Your task to perform on an android device: open app "Firefox Browser" (install if not already installed), go to login, and select forgot password Image 0: 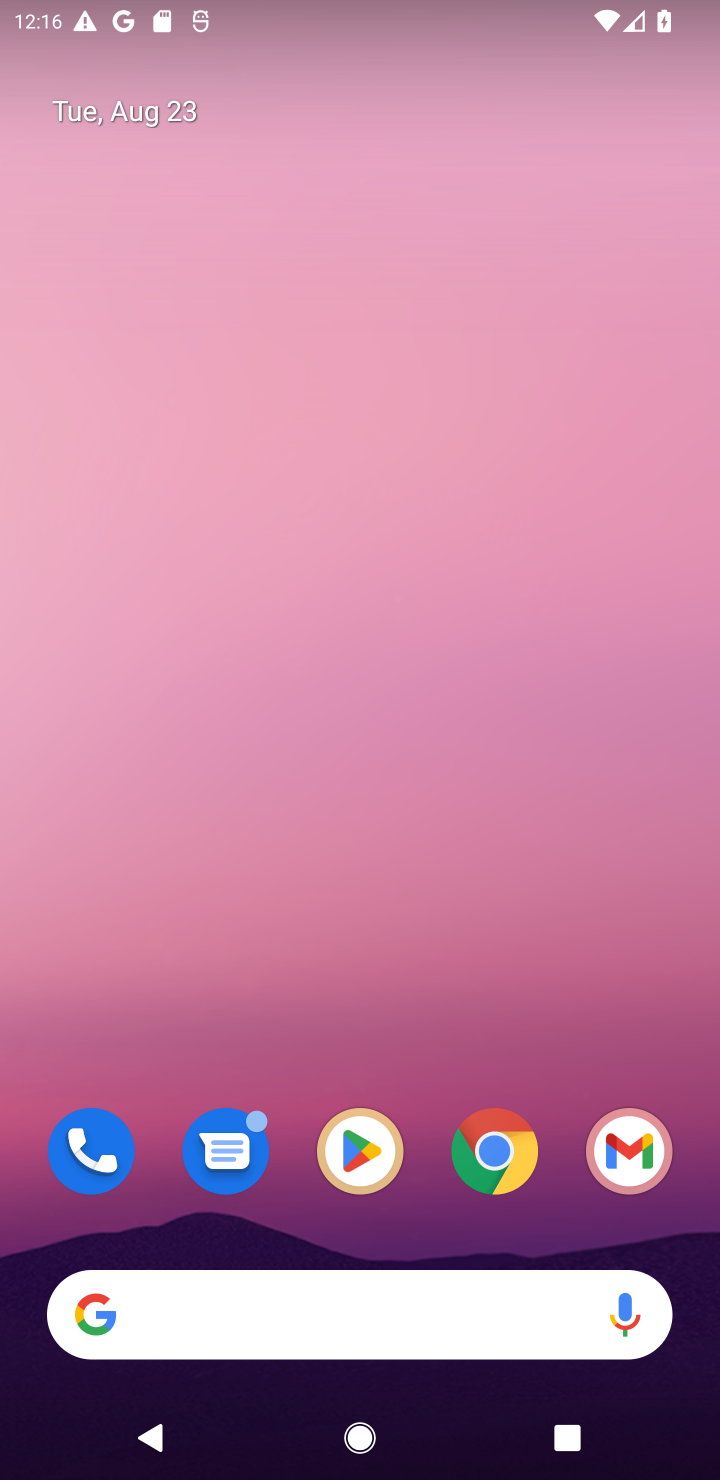
Step 0: click (345, 1136)
Your task to perform on an android device: open app "Firefox Browser" (install if not already installed), go to login, and select forgot password Image 1: 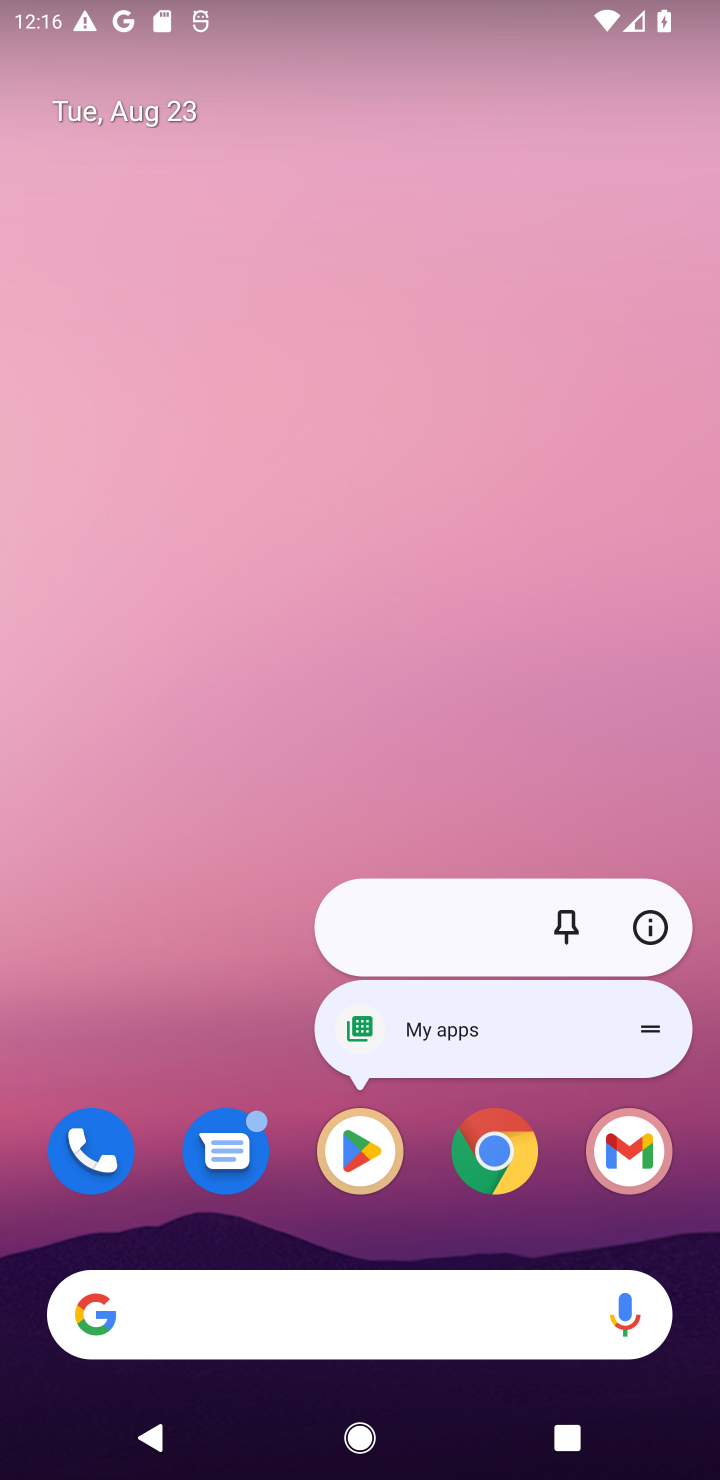
Step 1: click (348, 1152)
Your task to perform on an android device: open app "Firefox Browser" (install if not already installed), go to login, and select forgot password Image 2: 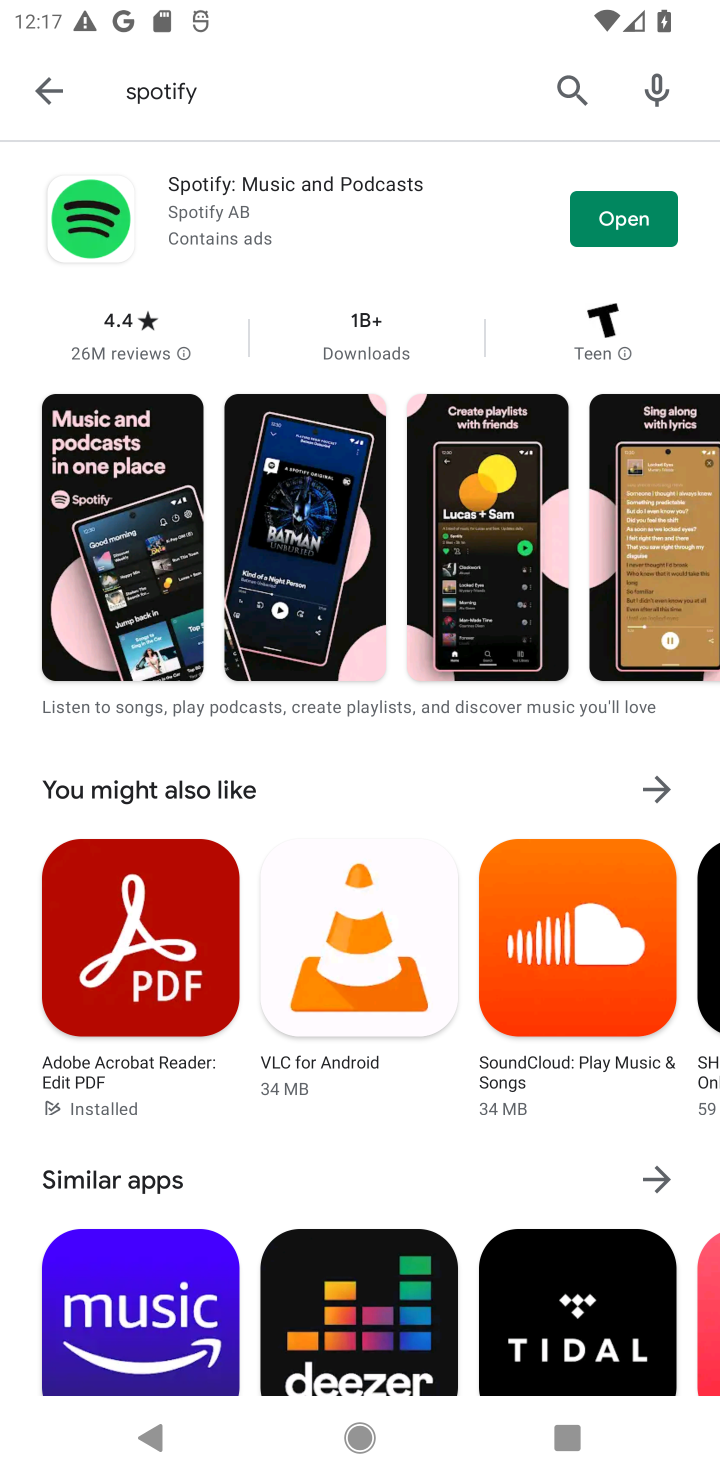
Step 2: click (561, 97)
Your task to perform on an android device: open app "Firefox Browser" (install if not already installed), go to login, and select forgot password Image 3: 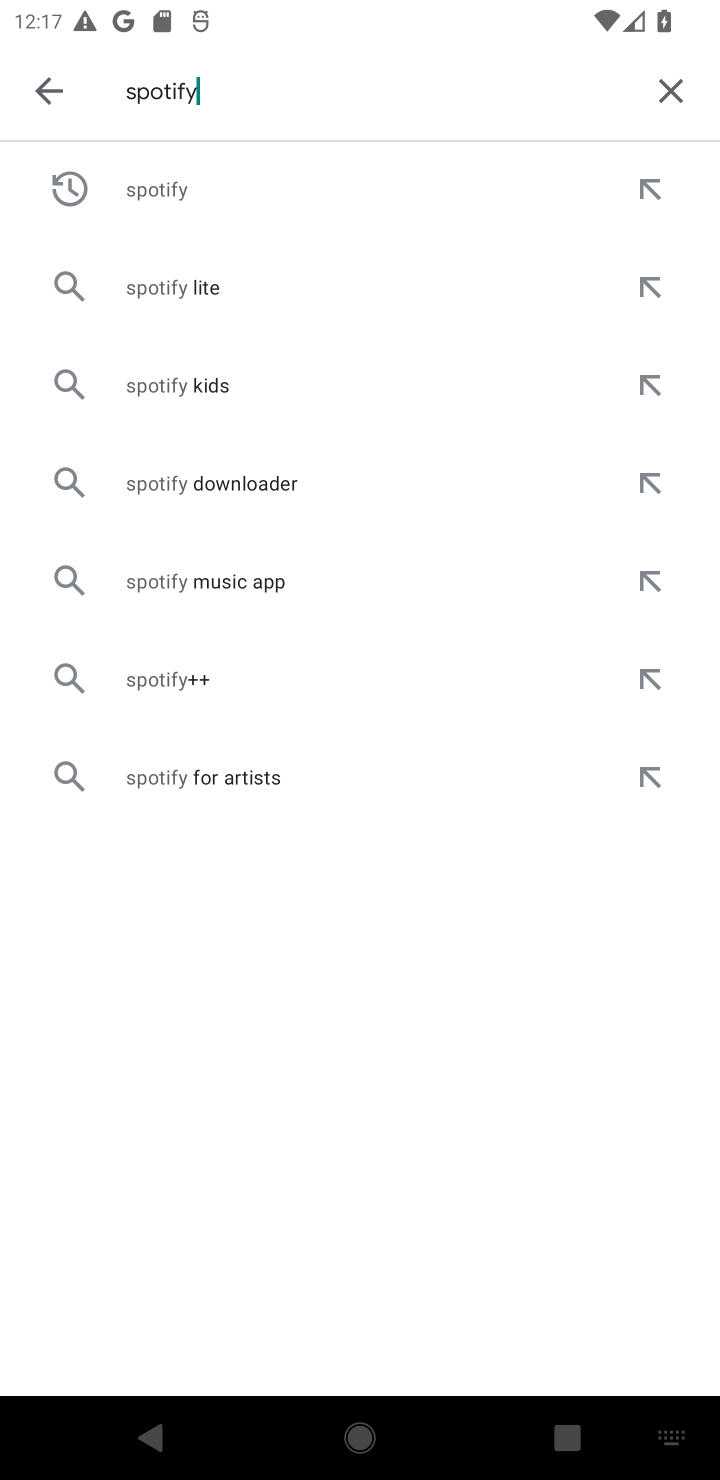
Step 3: click (668, 89)
Your task to perform on an android device: open app "Firefox Browser" (install if not already installed), go to login, and select forgot password Image 4: 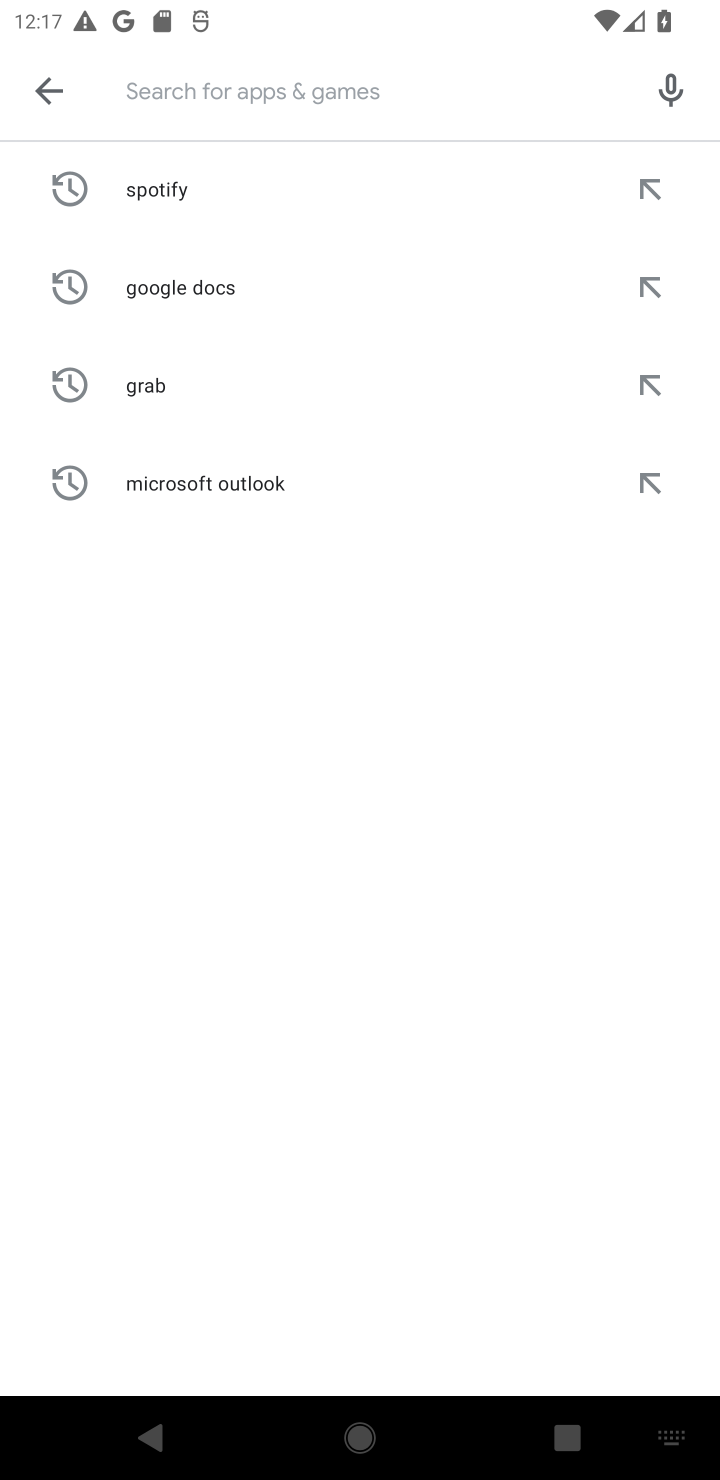
Step 4: type "Firefox Browser"
Your task to perform on an android device: open app "Firefox Browser" (install if not already installed), go to login, and select forgot password Image 5: 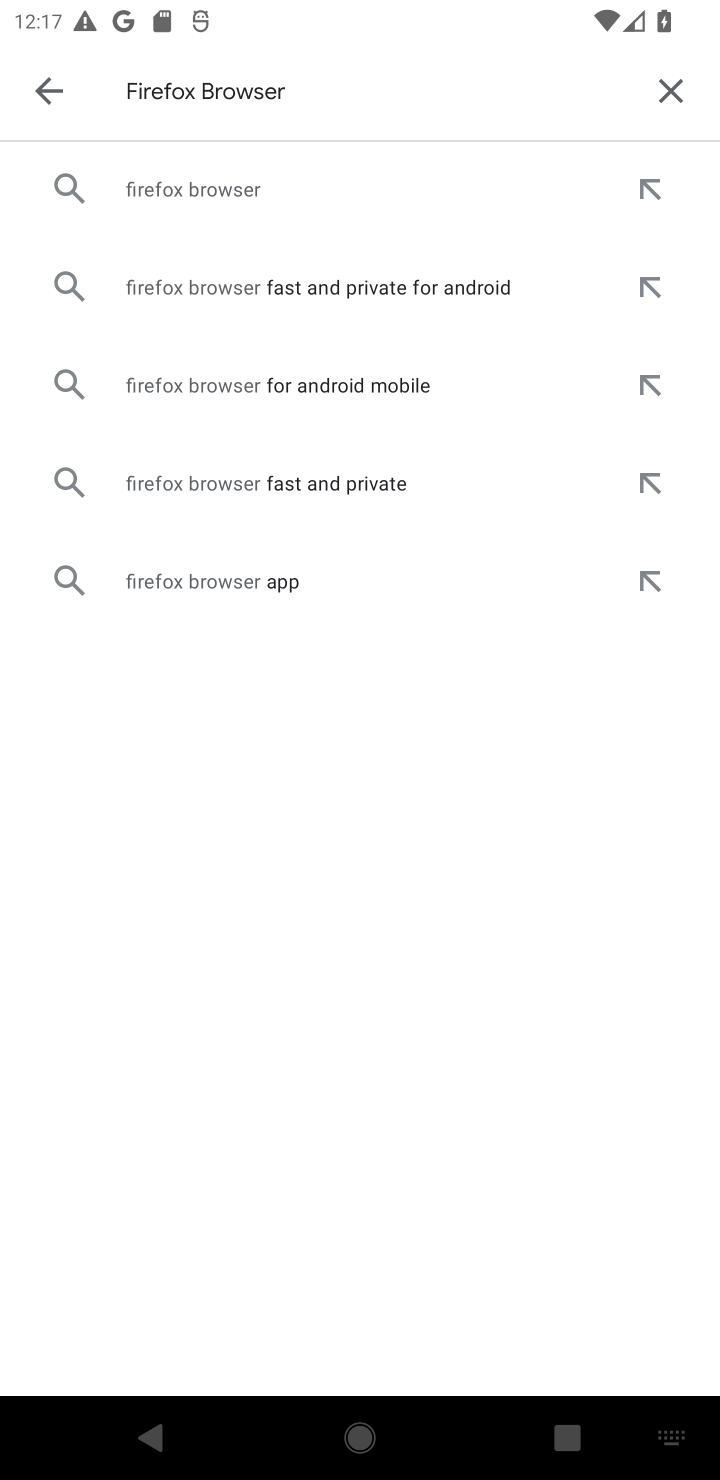
Step 5: click (233, 185)
Your task to perform on an android device: open app "Firefox Browser" (install if not already installed), go to login, and select forgot password Image 6: 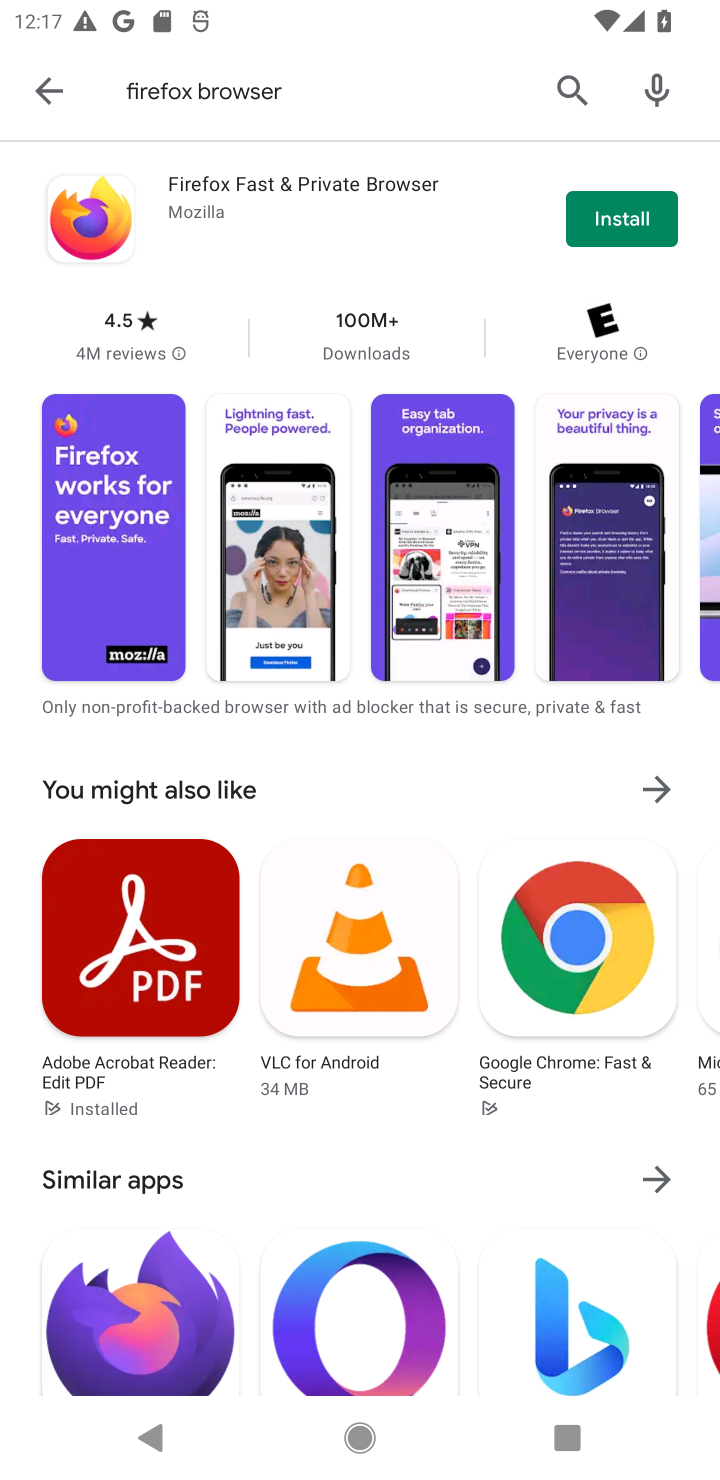
Step 6: click (602, 214)
Your task to perform on an android device: open app "Firefox Browser" (install if not already installed), go to login, and select forgot password Image 7: 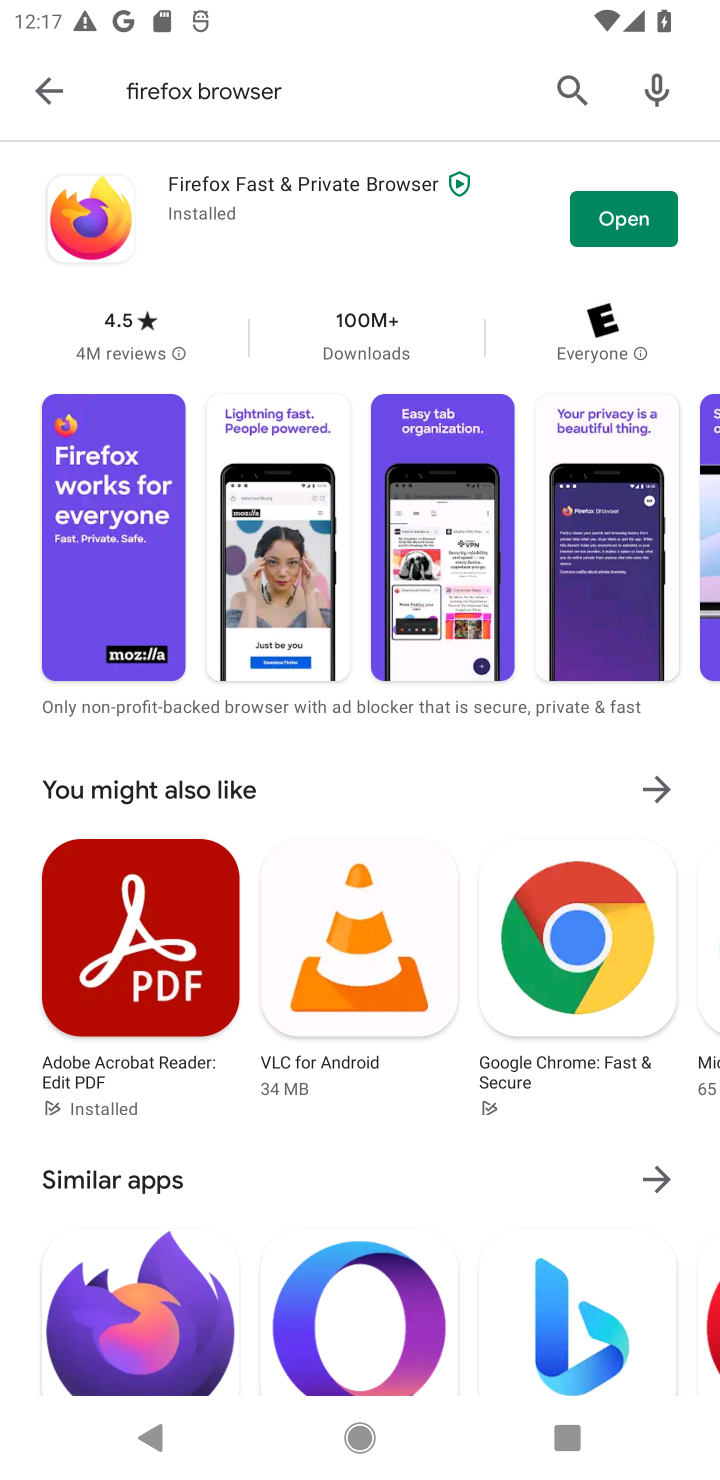
Step 7: click (602, 214)
Your task to perform on an android device: open app "Firefox Browser" (install if not already installed), go to login, and select forgot password Image 8: 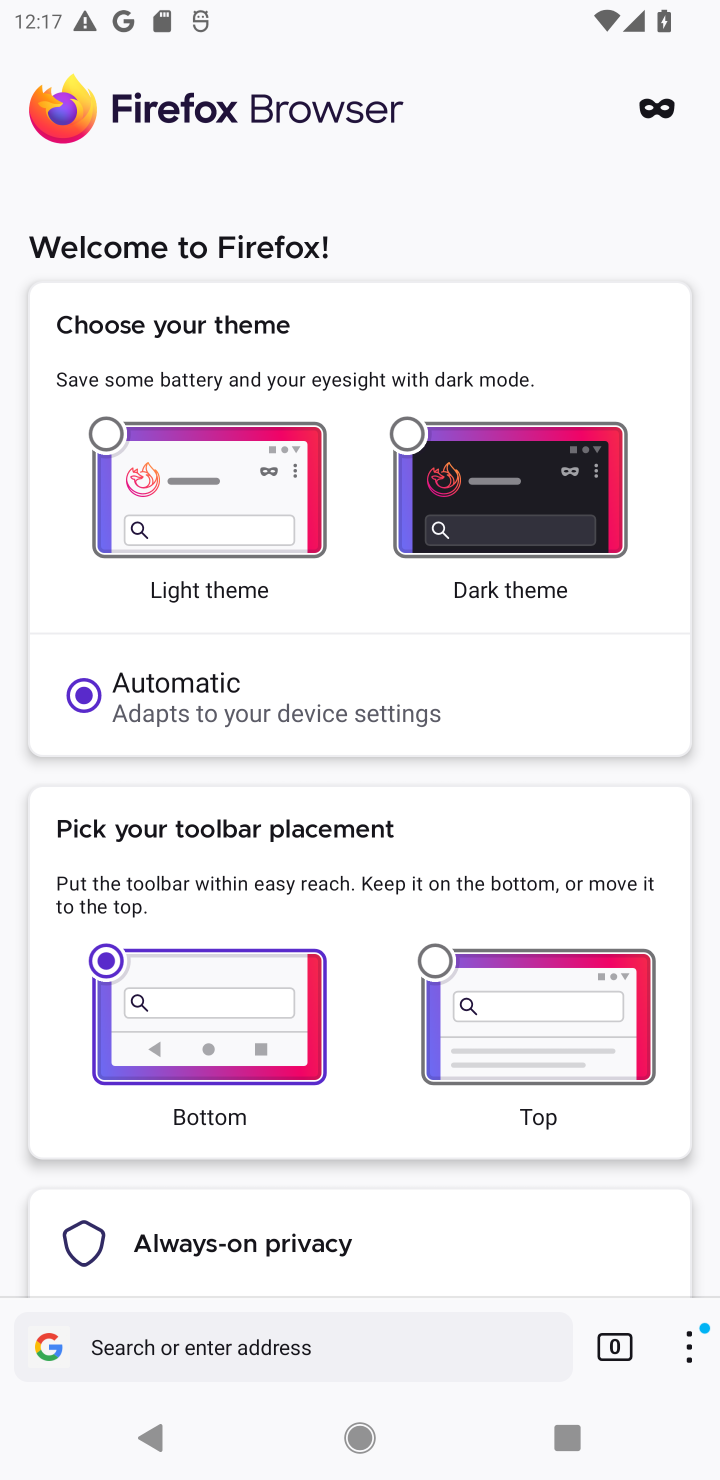
Step 8: task complete